Your task to perform on an android device: toggle improve location accuracy Image 0: 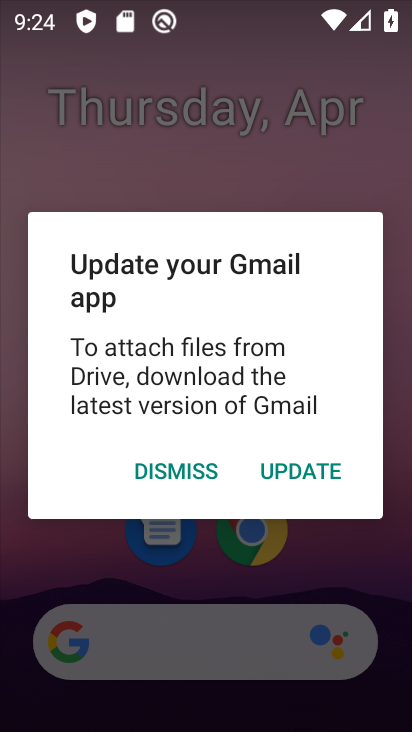
Step 0: press home button
Your task to perform on an android device: toggle improve location accuracy Image 1: 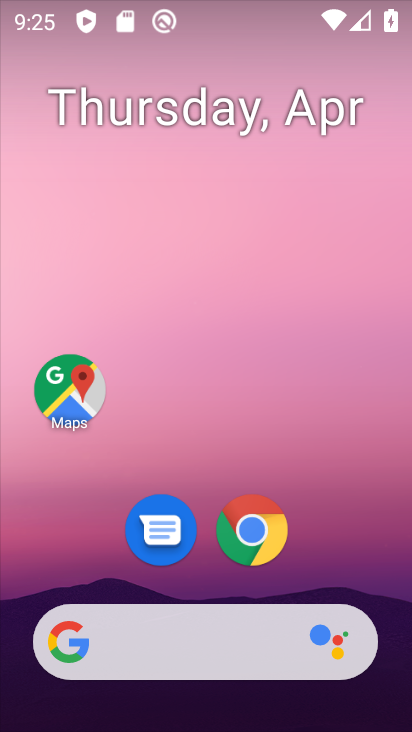
Step 1: drag from (373, 575) to (289, 32)
Your task to perform on an android device: toggle improve location accuracy Image 2: 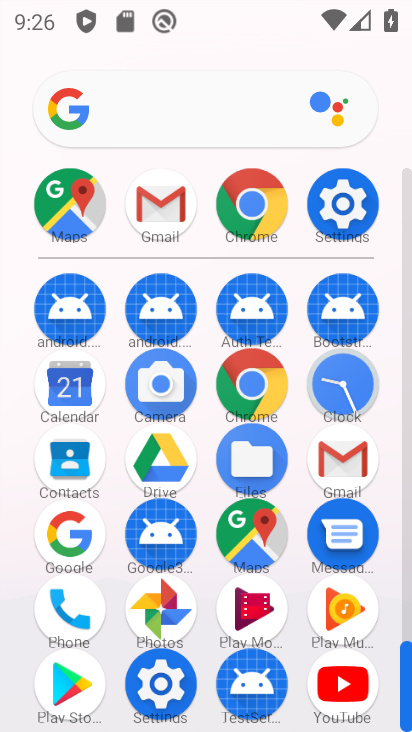
Step 2: click (346, 210)
Your task to perform on an android device: toggle improve location accuracy Image 3: 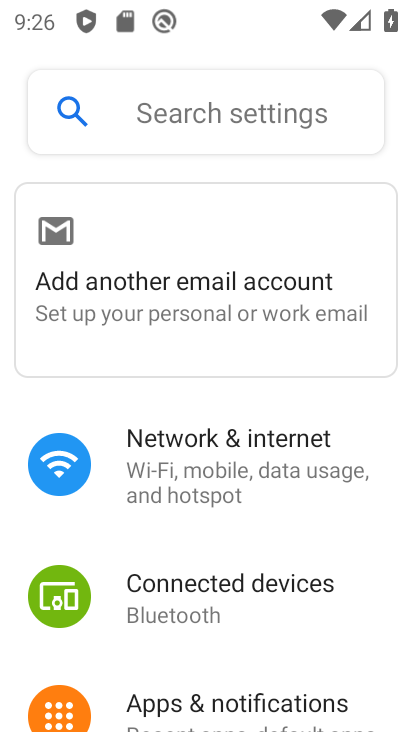
Step 3: drag from (198, 636) to (315, 106)
Your task to perform on an android device: toggle improve location accuracy Image 4: 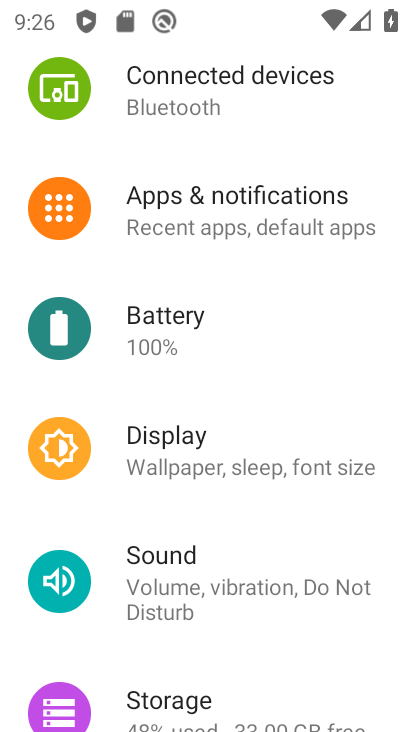
Step 4: drag from (231, 611) to (311, 143)
Your task to perform on an android device: toggle improve location accuracy Image 5: 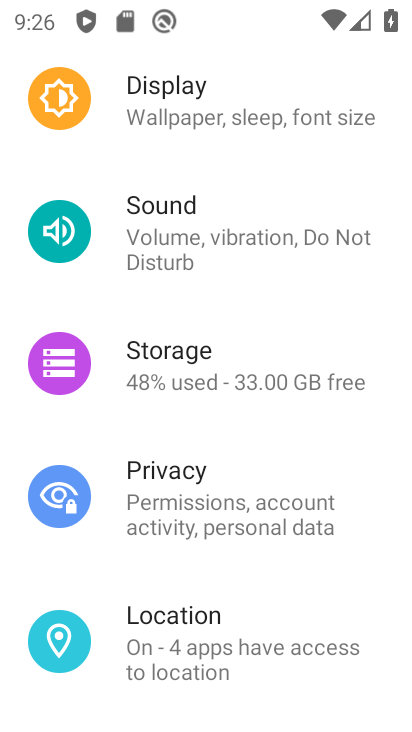
Step 5: click (196, 638)
Your task to perform on an android device: toggle improve location accuracy Image 6: 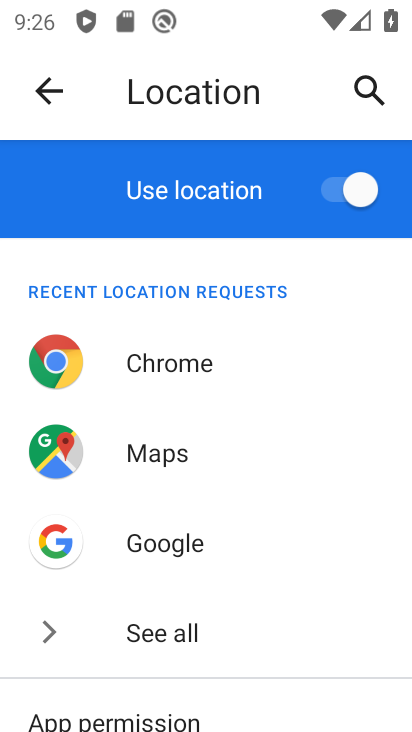
Step 6: drag from (207, 661) to (312, 143)
Your task to perform on an android device: toggle improve location accuracy Image 7: 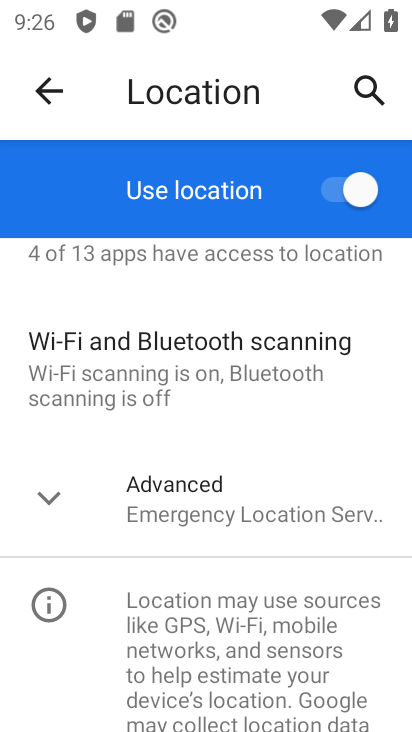
Step 7: click (235, 506)
Your task to perform on an android device: toggle improve location accuracy Image 8: 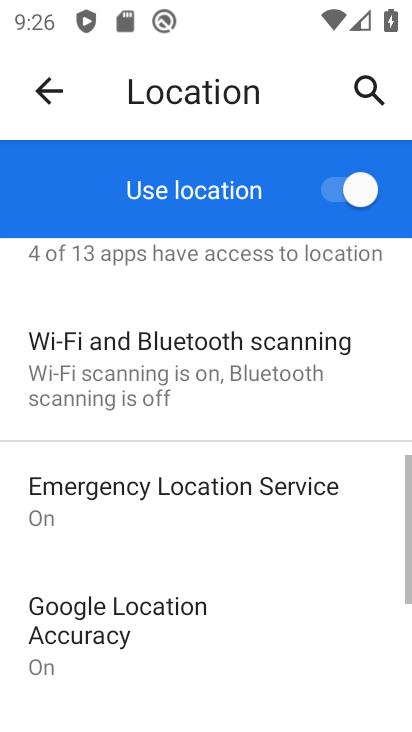
Step 8: click (178, 632)
Your task to perform on an android device: toggle improve location accuracy Image 9: 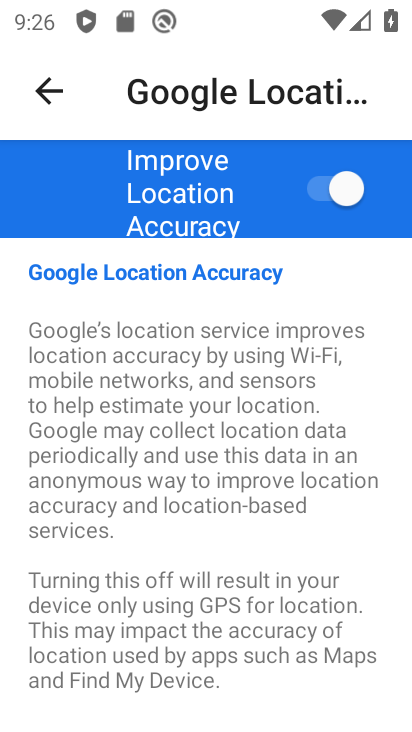
Step 9: click (327, 189)
Your task to perform on an android device: toggle improve location accuracy Image 10: 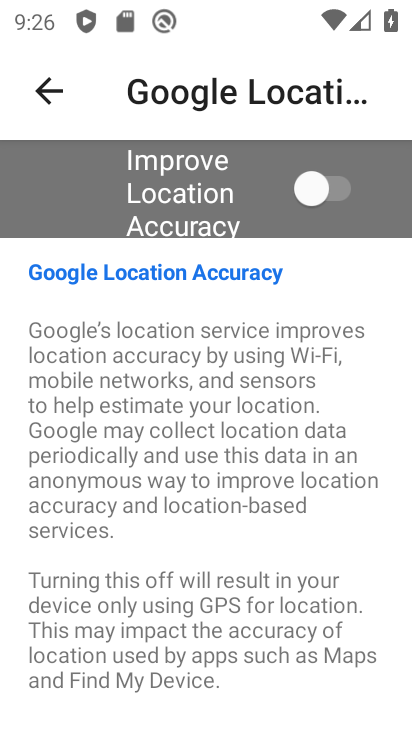
Step 10: task complete